Your task to perform on an android device: Open CNN.com Image 0: 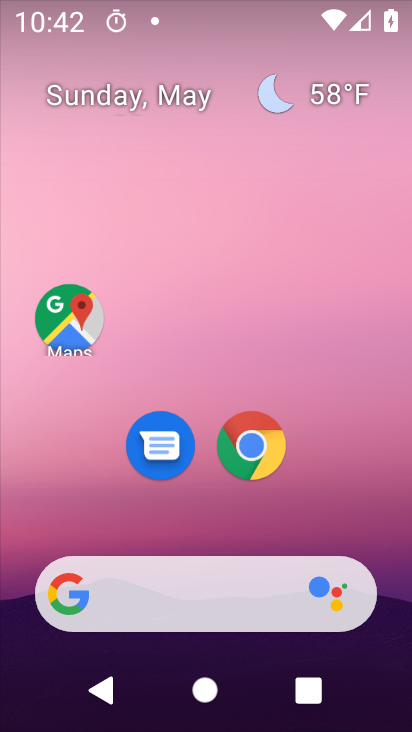
Step 0: drag from (367, 476) to (263, 21)
Your task to perform on an android device: Open CNN.com Image 1: 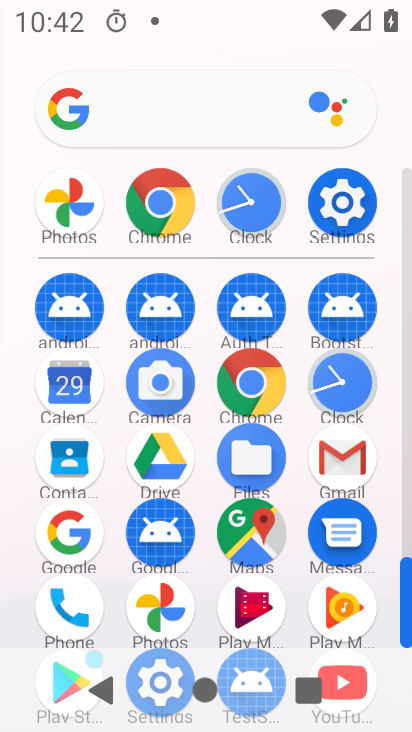
Step 1: drag from (25, 524) to (19, 213)
Your task to perform on an android device: Open CNN.com Image 2: 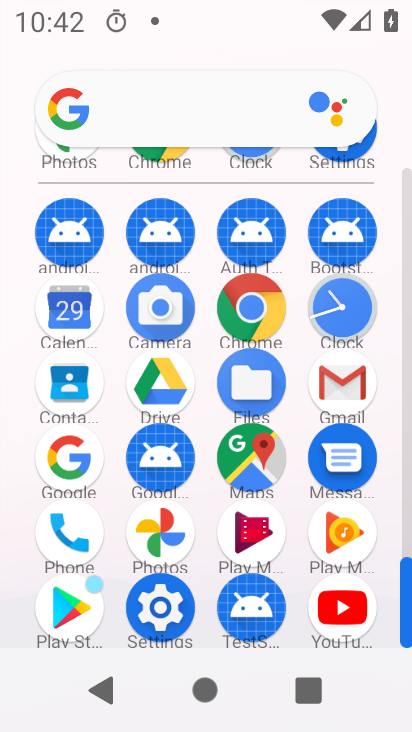
Step 2: click (251, 306)
Your task to perform on an android device: Open CNN.com Image 3: 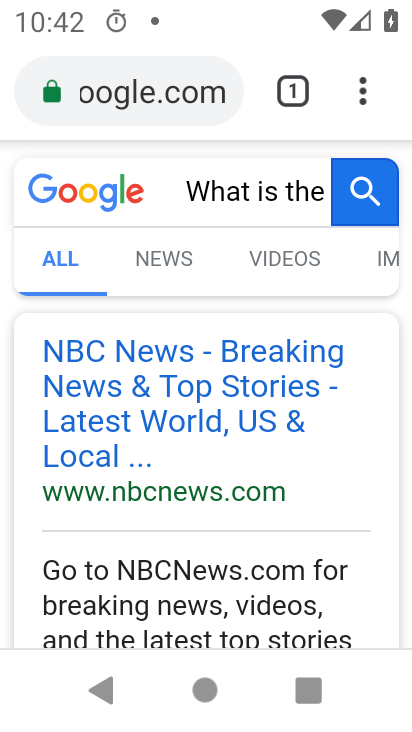
Step 3: click (170, 86)
Your task to perform on an android device: Open CNN.com Image 4: 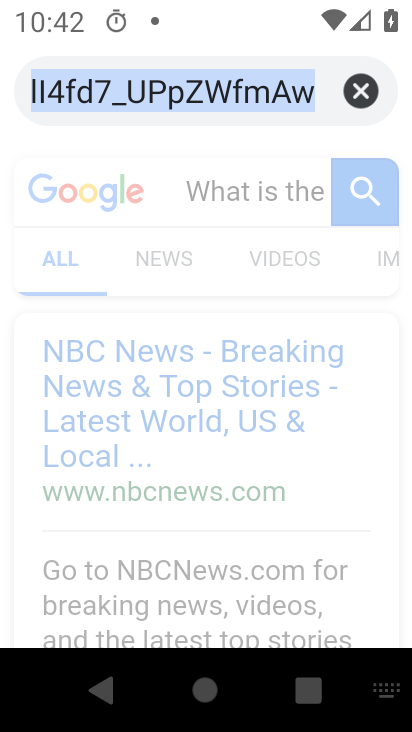
Step 4: click (362, 85)
Your task to perform on an android device: Open CNN.com Image 5: 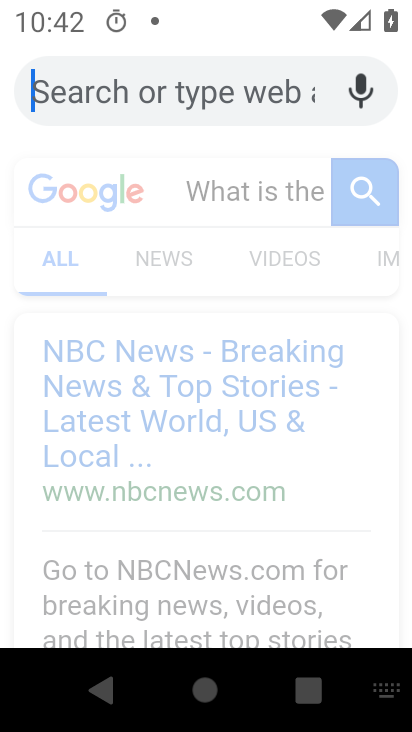
Step 5: type "CNN.com"
Your task to perform on an android device: Open CNN.com Image 6: 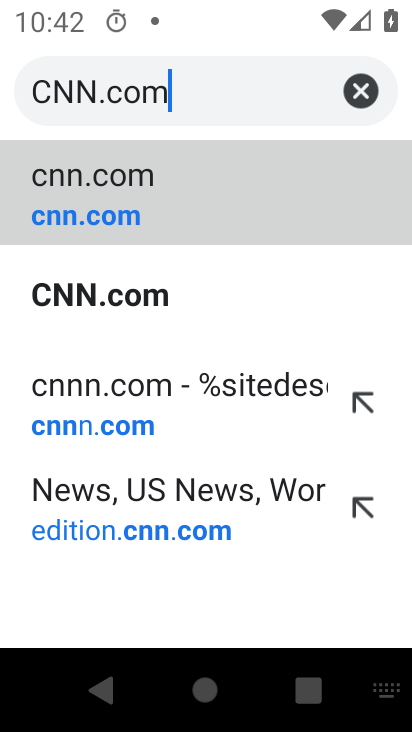
Step 6: type ""
Your task to perform on an android device: Open CNN.com Image 7: 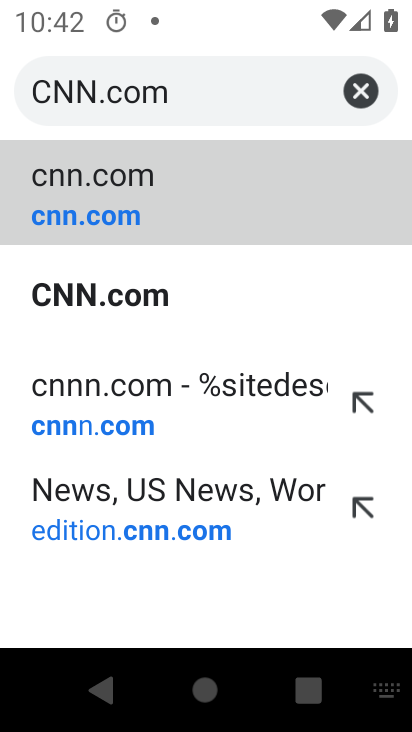
Step 7: click (105, 399)
Your task to perform on an android device: Open CNN.com Image 8: 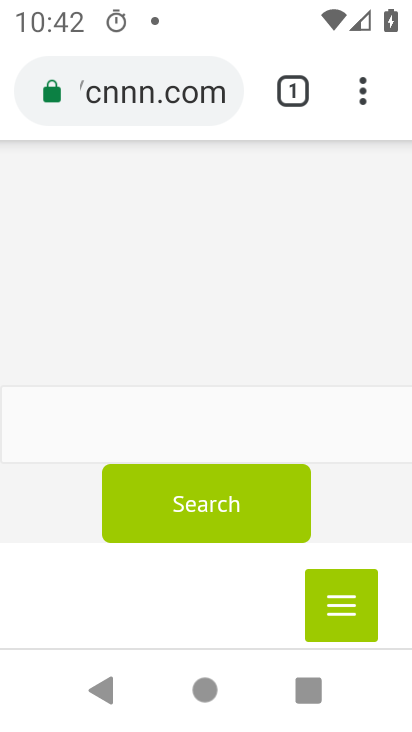
Step 8: click (176, 100)
Your task to perform on an android device: Open CNN.com Image 9: 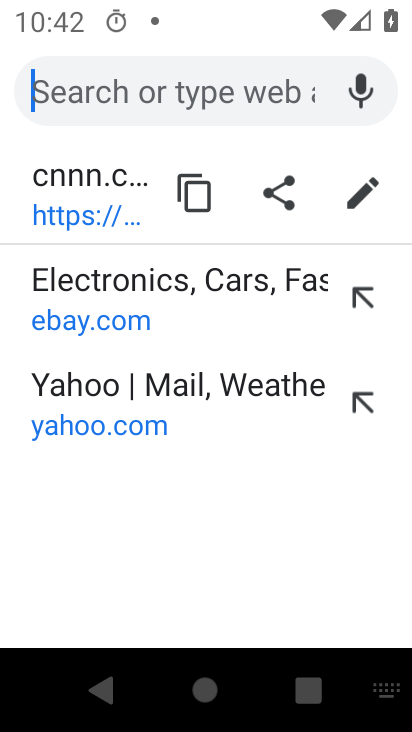
Step 9: type "CNN.com"
Your task to perform on an android device: Open CNN.com Image 10: 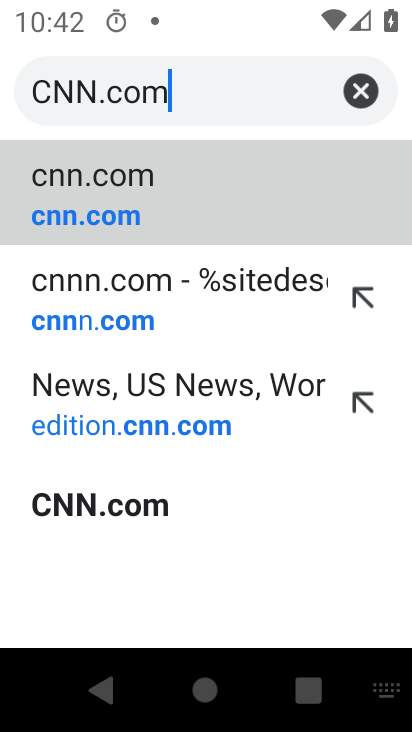
Step 10: type ""
Your task to perform on an android device: Open CNN.com Image 11: 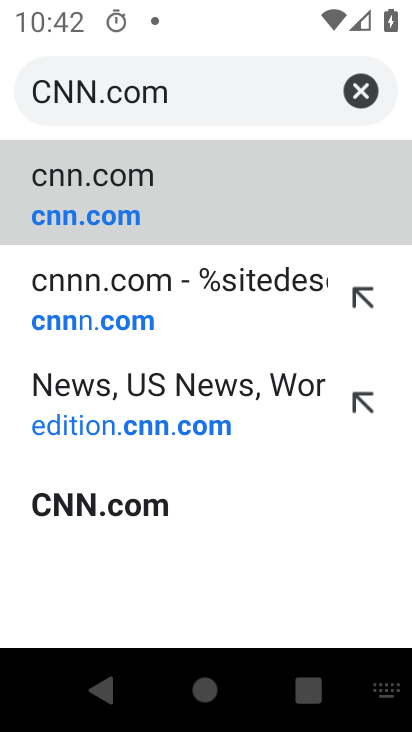
Step 11: click (159, 179)
Your task to perform on an android device: Open CNN.com Image 12: 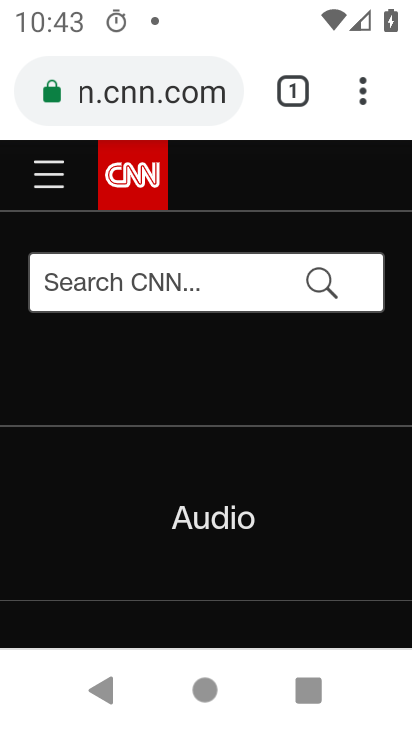
Step 12: task complete